Your task to perform on an android device: Open Google Image 0: 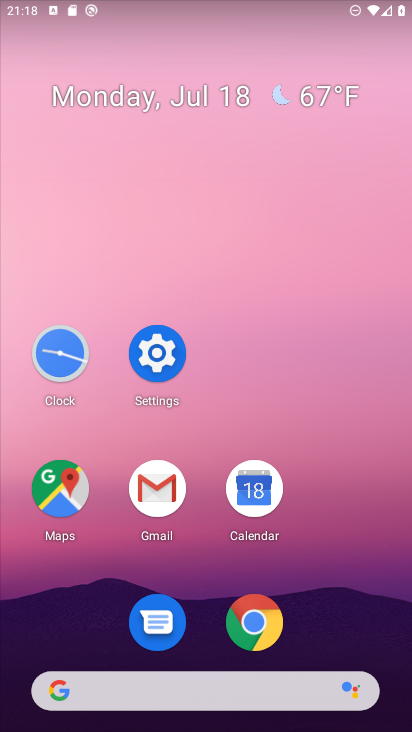
Step 0: drag from (384, 601) to (347, 46)
Your task to perform on an android device: Open Google Image 1: 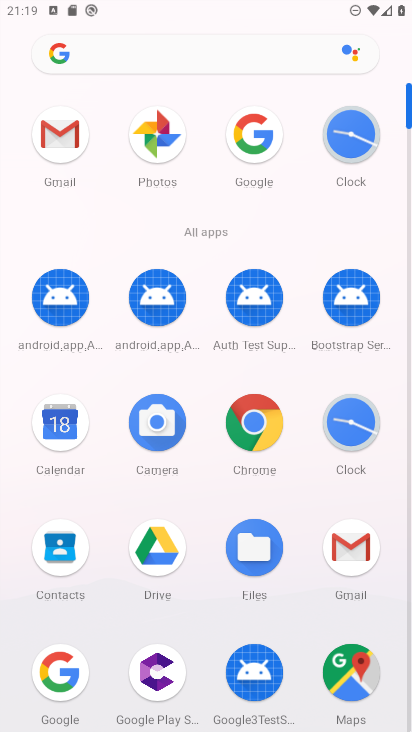
Step 1: click (66, 666)
Your task to perform on an android device: Open Google Image 2: 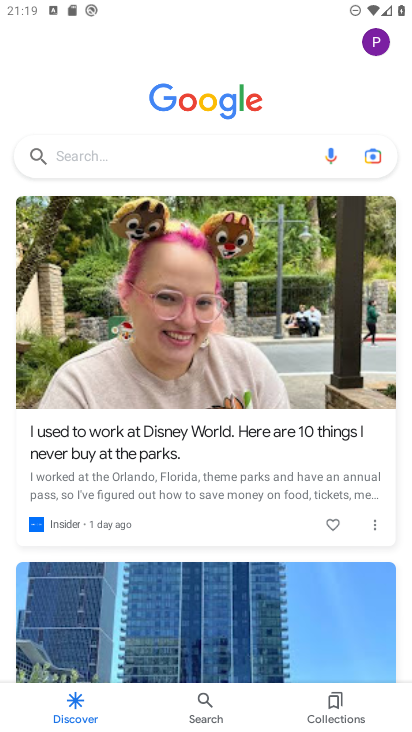
Step 2: task complete